Your task to perform on an android device: toggle airplane mode Image 0: 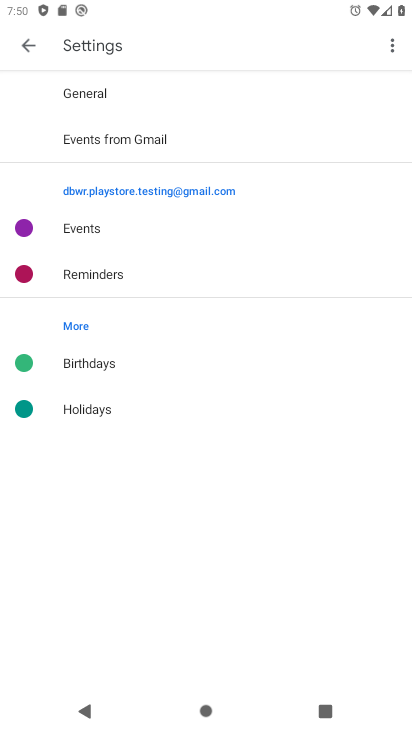
Step 0: press home button
Your task to perform on an android device: toggle airplane mode Image 1: 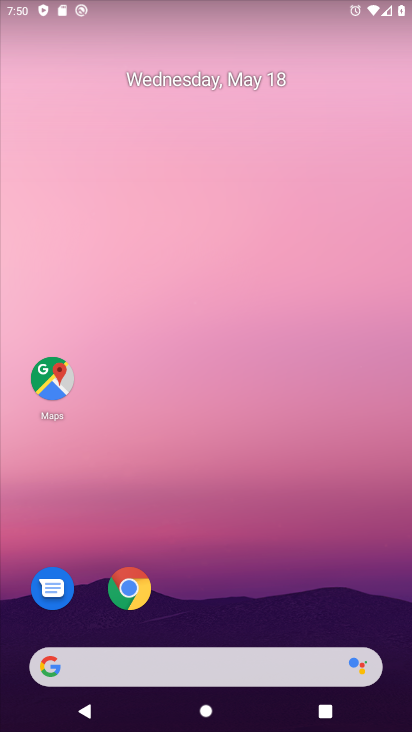
Step 1: drag from (222, 609) to (284, 211)
Your task to perform on an android device: toggle airplane mode Image 2: 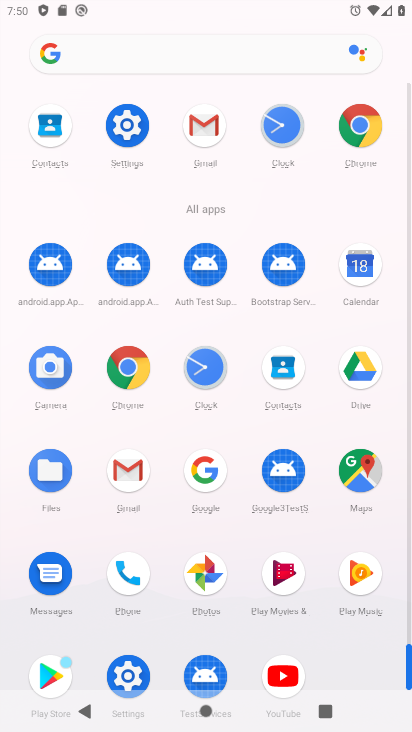
Step 2: click (136, 148)
Your task to perform on an android device: toggle airplane mode Image 3: 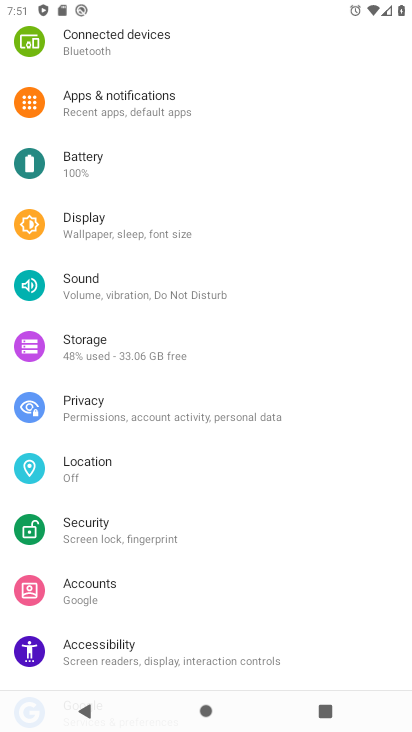
Step 3: drag from (174, 162) to (185, 357)
Your task to perform on an android device: toggle airplane mode Image 4: 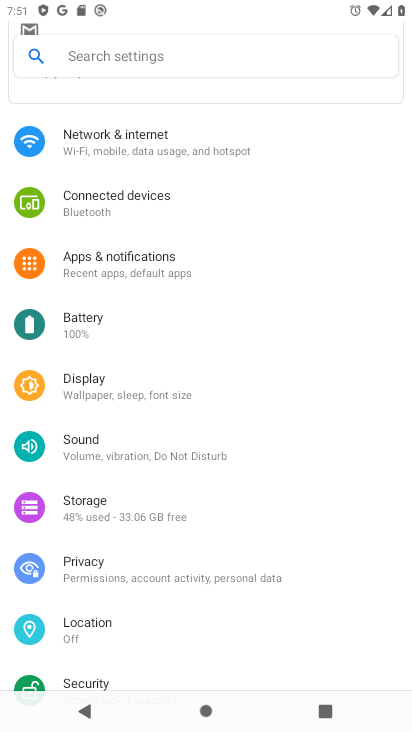
Step 4: click (130, 141)
Your task to perform on an android device: toggle airplane mode Image 5: 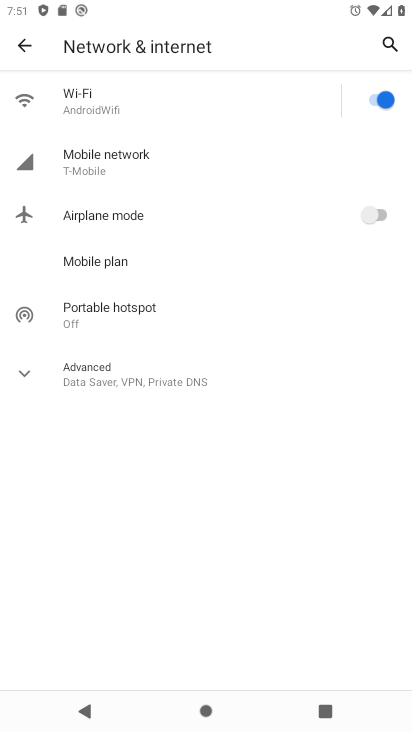
Step 5: click (351, 217)
Your task to perform on an android device: toggle airplane mode Image 6: 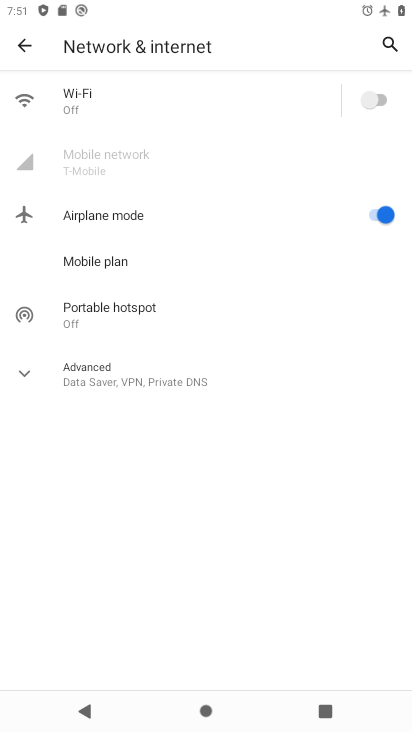
Step 6: task complete